Your task to perform on an android device: Open Youtube and go to the subscriptions tab Image 0: 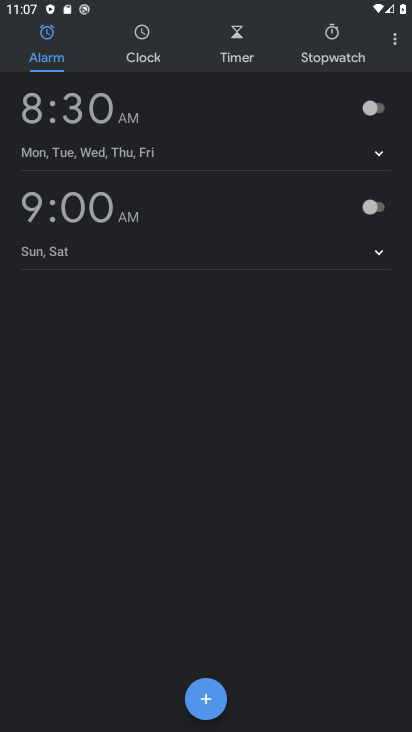
Step 0: press home button
Your task to perform on an android device: Open Youtube and go to the subscriptions tab Image 1: 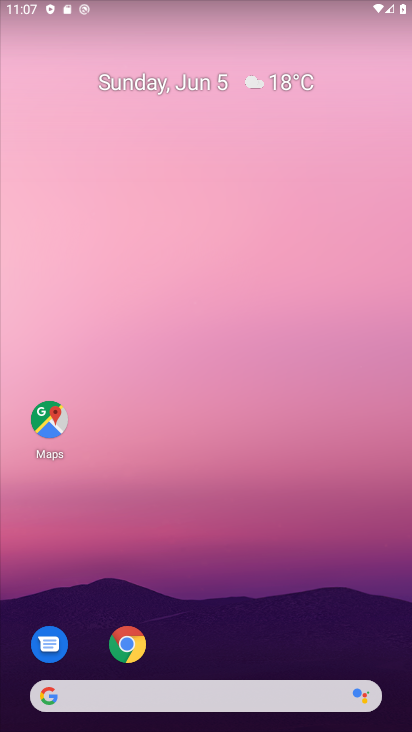
Step 1: drag from (208, 723) to (179, 8)
Your task to perform on an android device: Open Youtube and go to the subscriptions tab Image 2: 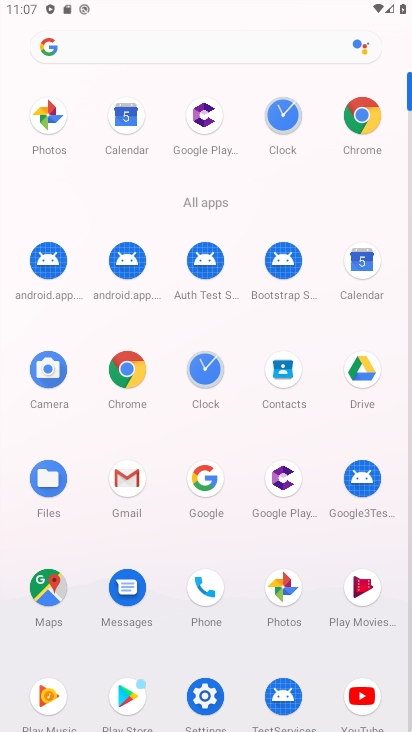
Step 2: click (374, 698)
Your task to perform on an android device: Open Youtube and go to the subscriptions tab Image 3: 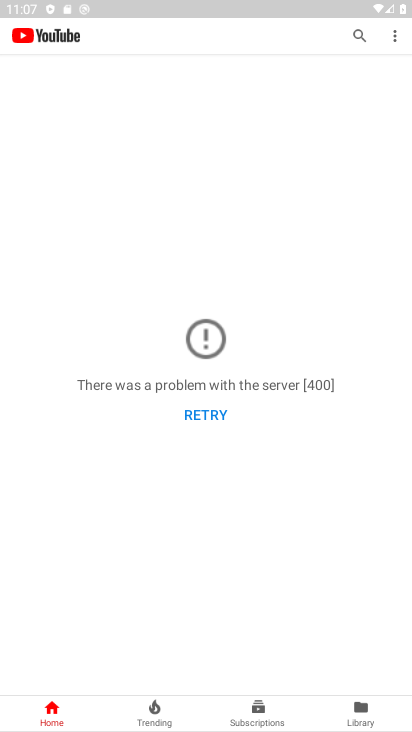
Step 3: click (246, 711)
Your task to perform on an android device: Open Youtube and go to the subscriptions tab Image 4: 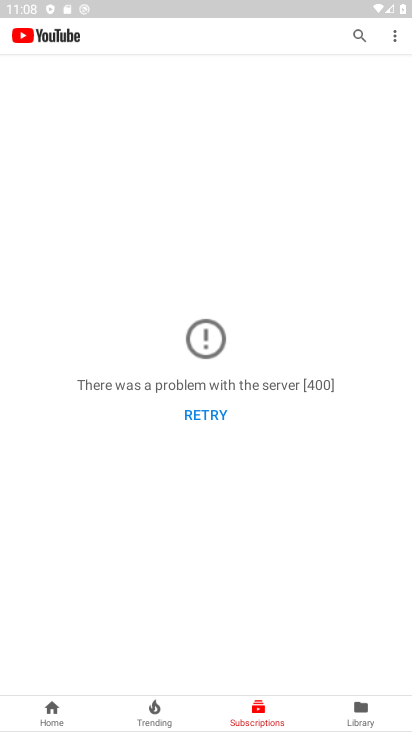
Step 4: task complete